Your task to perform on an android device: Search for bose soundlink mini on target, select the first entry, and add it to the cart. Image 0: 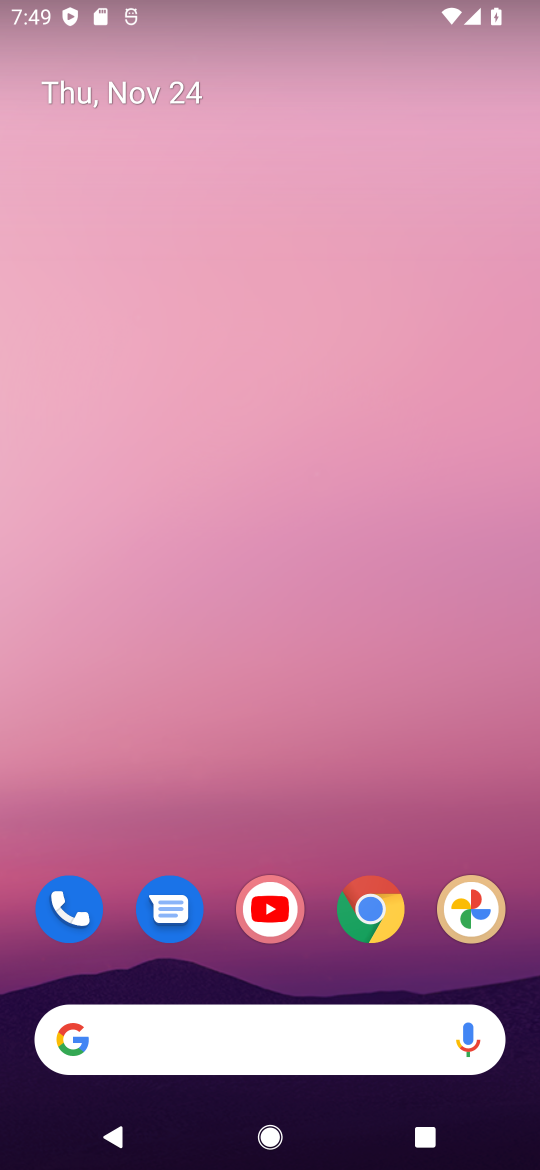
Step 0: click (381, 918)
Your task to perform on an android device: Search for bose soundlink mini on target, select the first entry, and add it to the cart. Image 1: 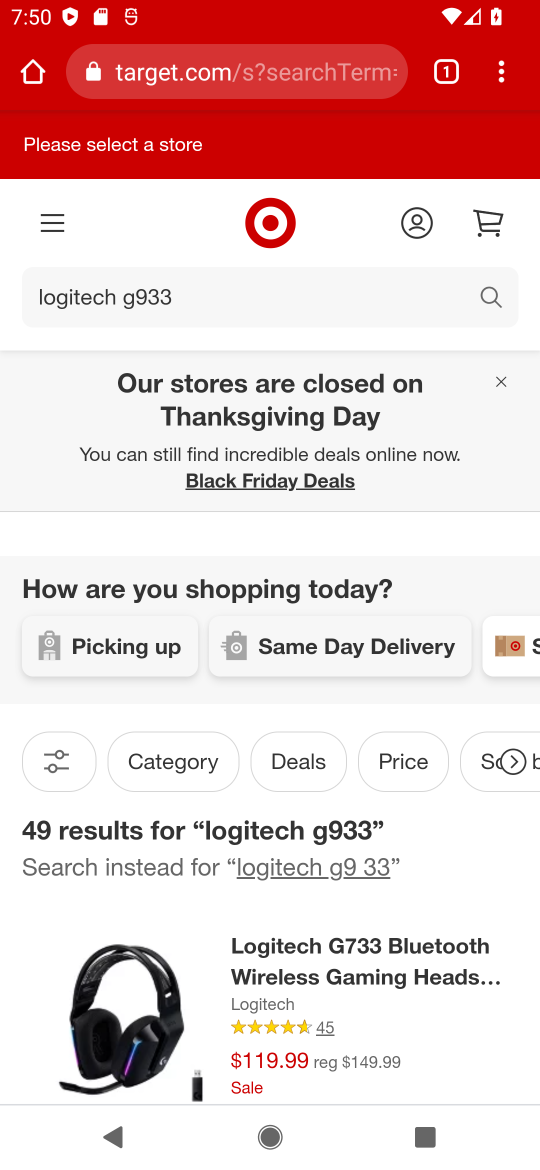
Step 1: click (238, 308)
Your task to perform on an android device: Search for bose soundlink mini on target, select the first entry, and add it to the cart. Image 2: 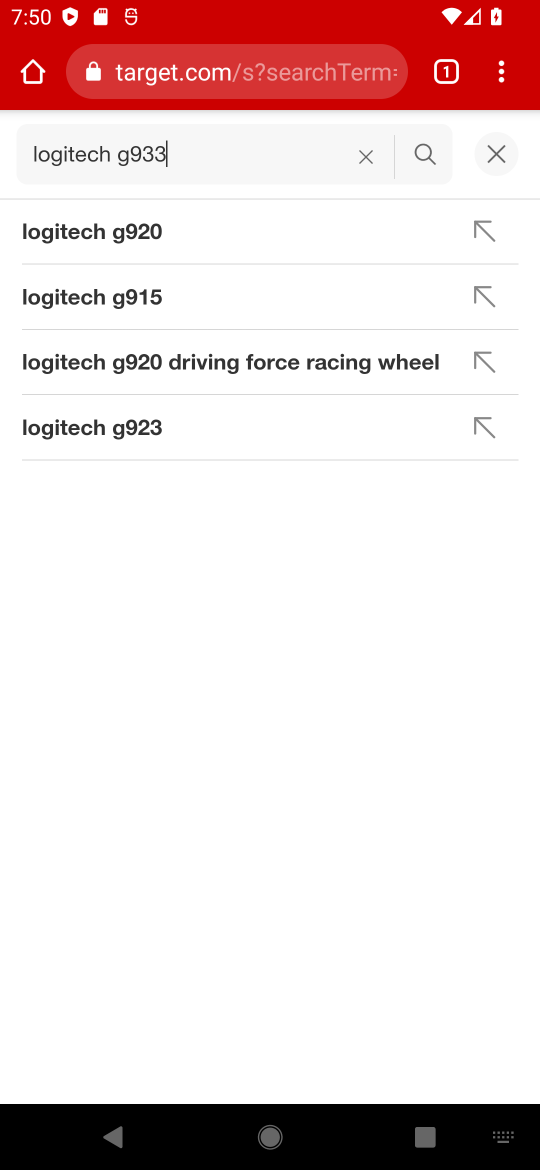
Step 2: click (481, 148)
Your task to perform on an android device: Search for bose soundlink mini on target, select the first entry, and add it to the cart. Image 3: 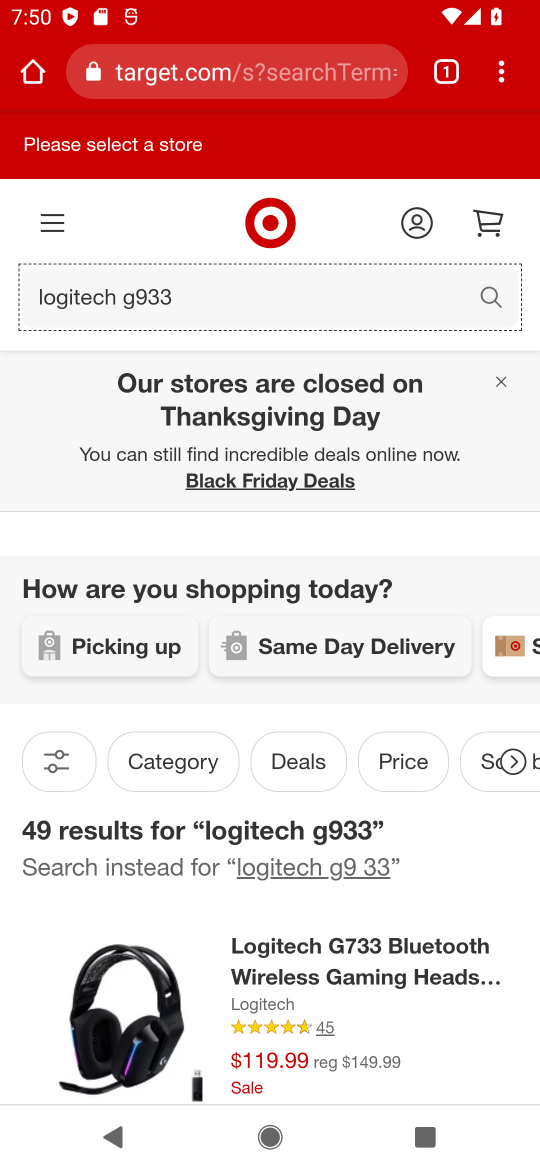
Step 3: click (248, 289)
Your task to perform on an android device: Search for bose soundlink mini on target, select the first entry, and add it to the cart. Image 4: 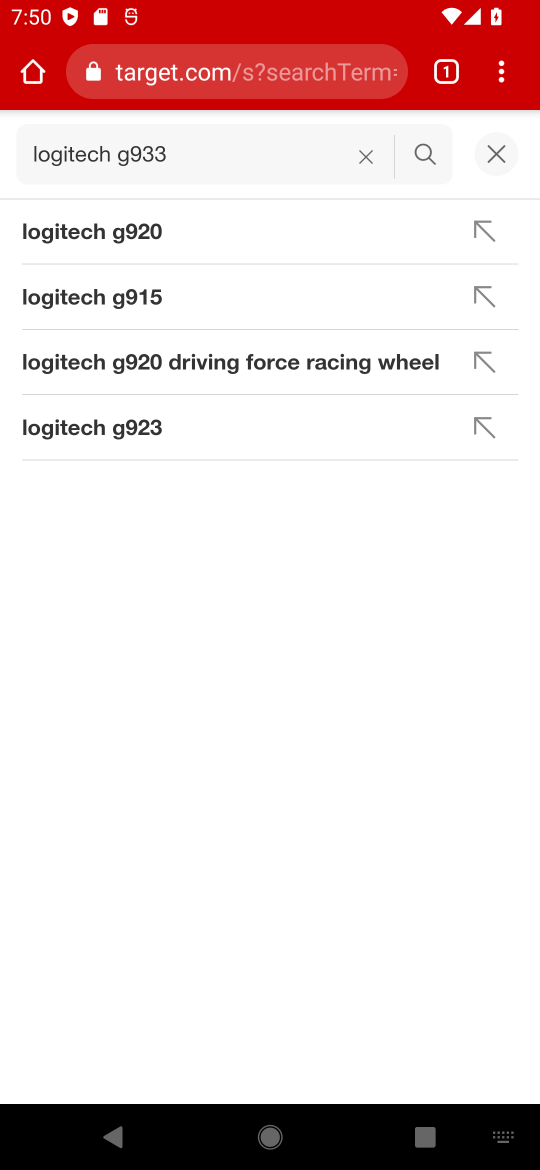
Step 4: click (489, 163)
Your task to perform on an android device: Search for bose soundlink mini on target, select the first entry, and add it to the cart. Image 5: 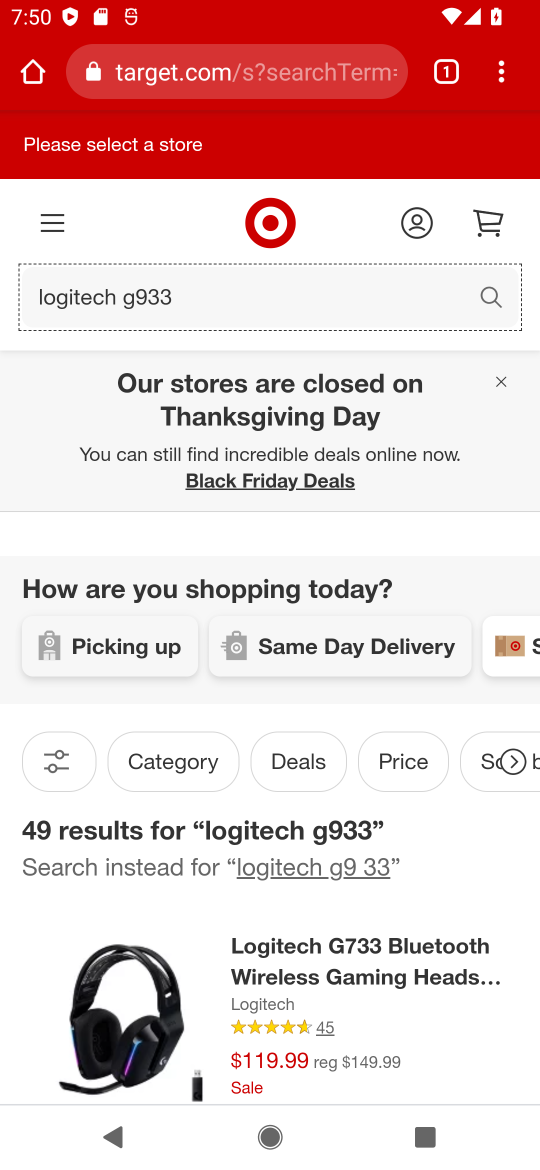
Step 5: click (380, 286)
Your task to perform on an android device: Search for bose soundlink mini on target, select the first entry, and add it to the cart. Image 6: 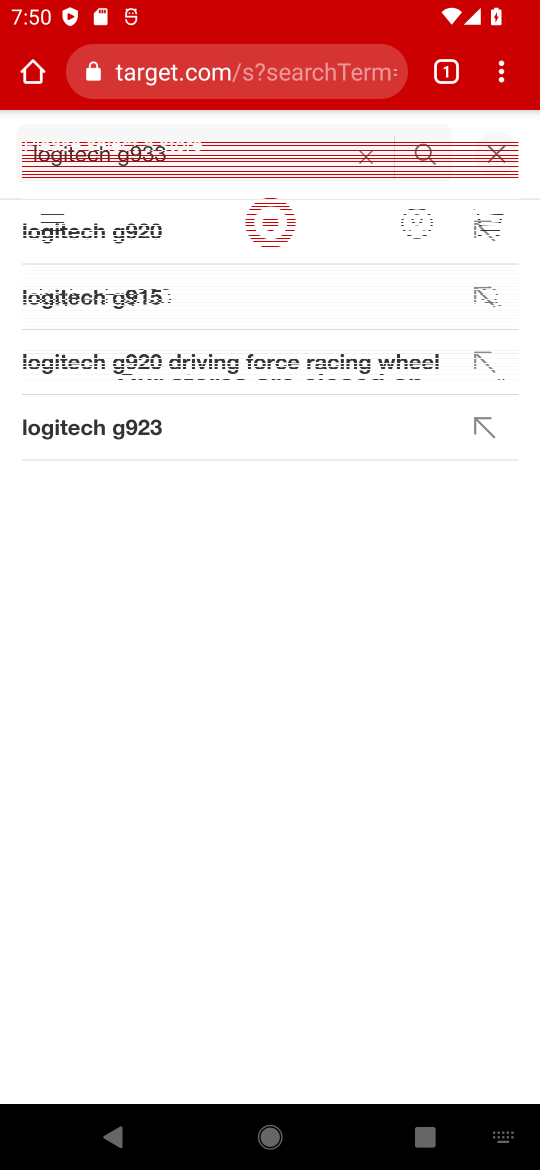
Step 6: click (377, 171)
Your task to perform on an android device: Search for bose soundlink mini on target, select the first entry, and add it to the cart. Image 7: 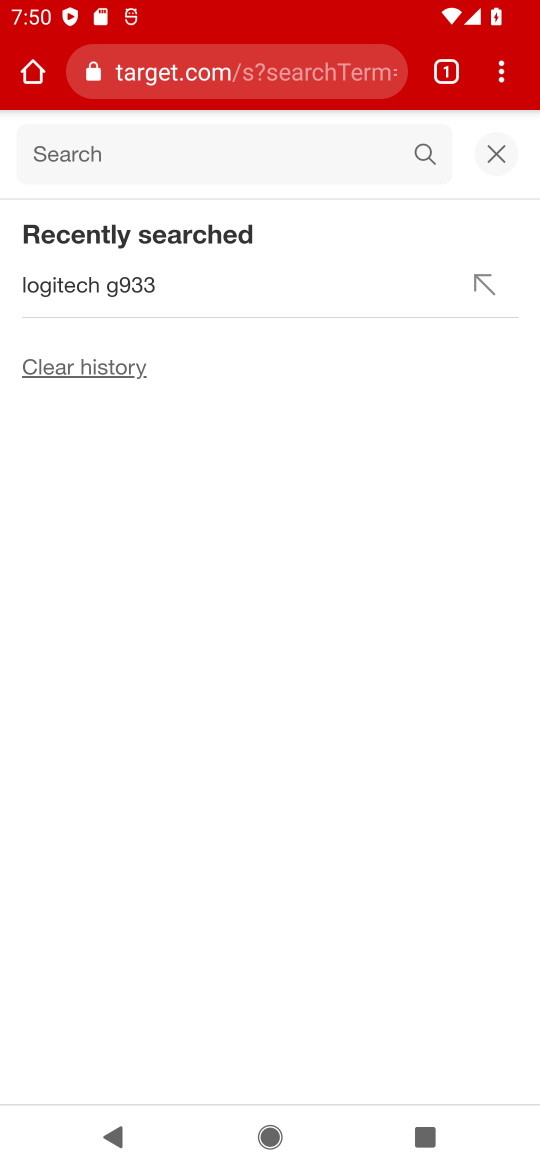
Step 7: click (214, 169)
Your task to perform on an android device: Search for bose soundlink mini on target, select the first entry, and add it to the cart. Image 8: 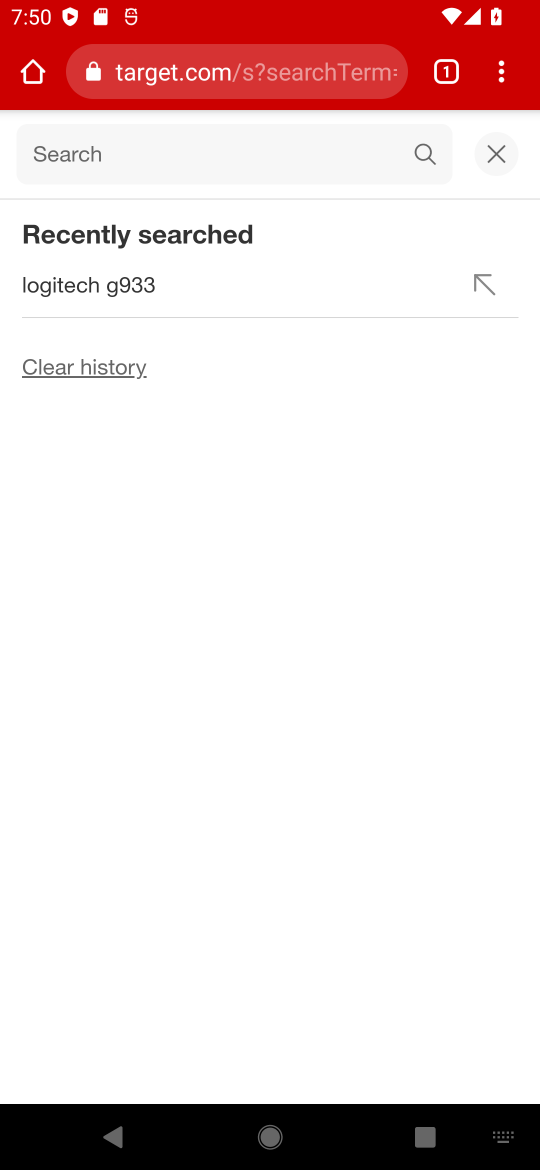
Step 8: type ""
Your task to perform on an android device: Search for bose soundlink mini on target, select the first entry, and add it to the cart. Image 9: 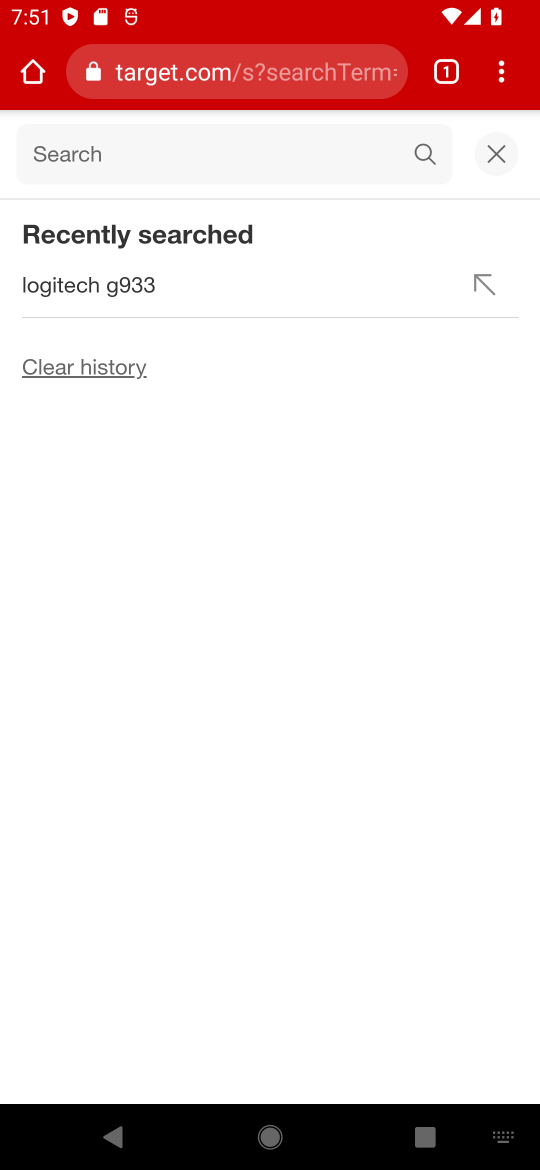
Step 9: type "bose soundlink mini"
Your task to perform on an android device: Search for bose soundlink mini on target, select the first entry, and add it to the cart. Image 10: 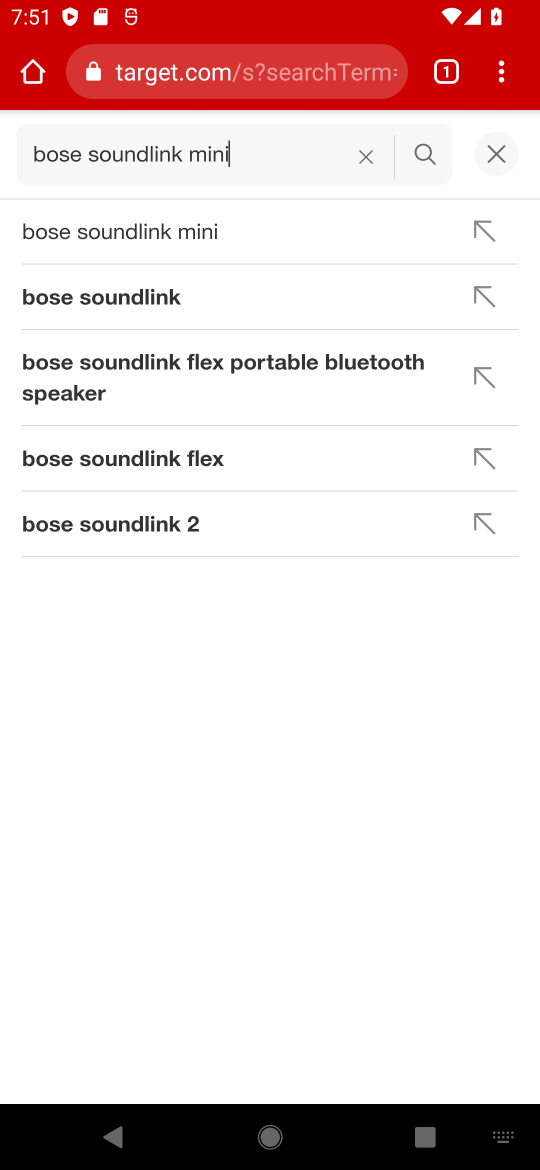
Step 10: press enter
Your task to perform on an android device: Search for bose soundlink mini on target, select the first entry, and add it to the cart. Image 11: 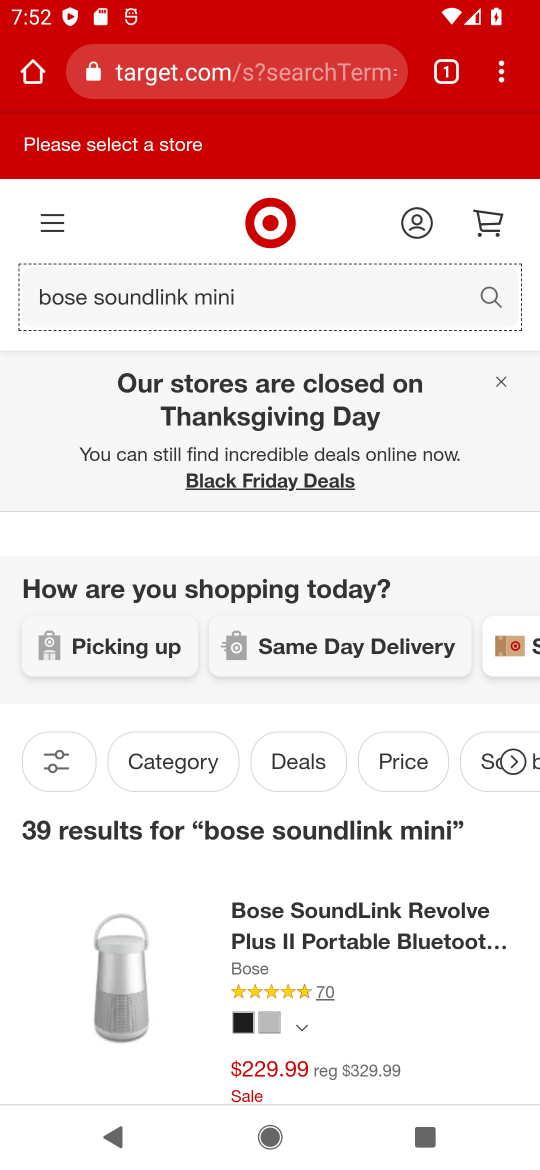
Step 11: drag from (335, 965) to (325, 589)
Your task to perform on an android device: Search for bose soundlink mini on target, select the first entry, and add it to the cart. Image 12: 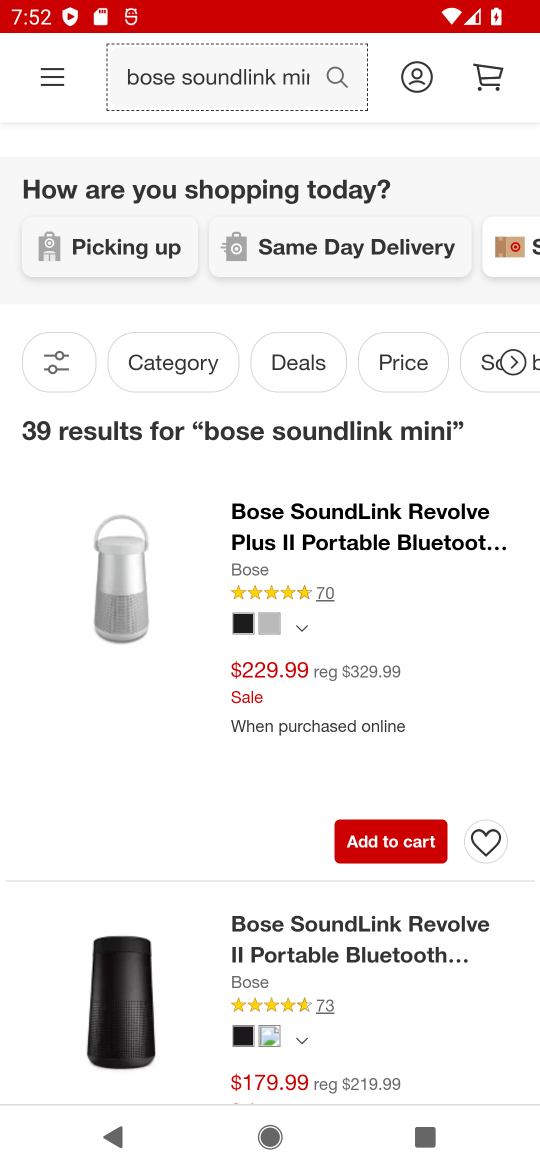
Step 12: click (400, 823)
Your task to perform on an android device: Search for bose soundlink mini on target, select the first entry, and add it to the cart. Image 13: 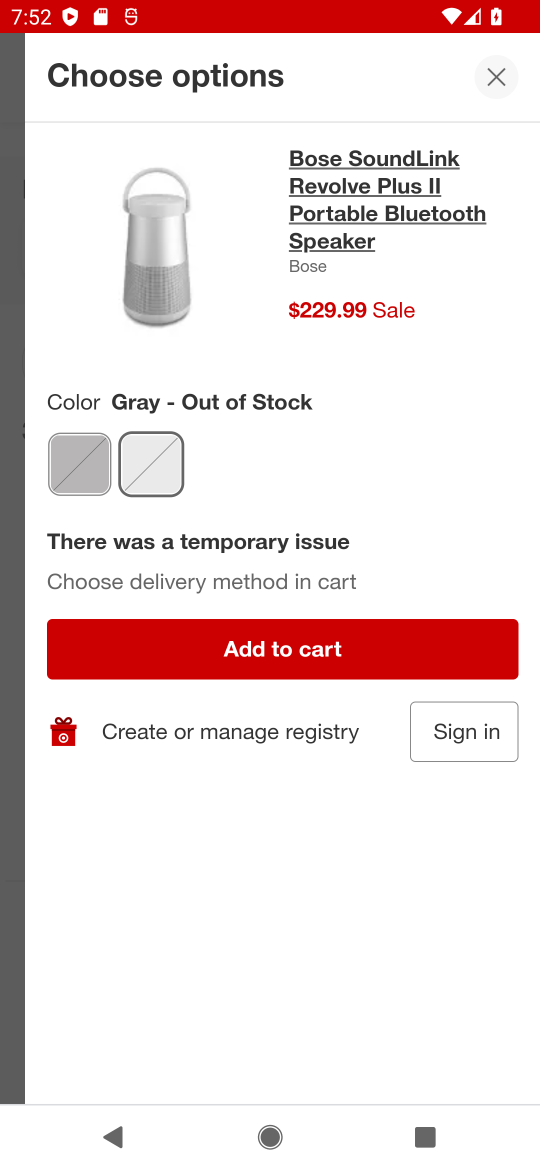
Step 13: click (247, 664)
Your task to perform on an android device: Search for bose soundlink mini on target, select the first entry, and add it to the cart. Image 14: 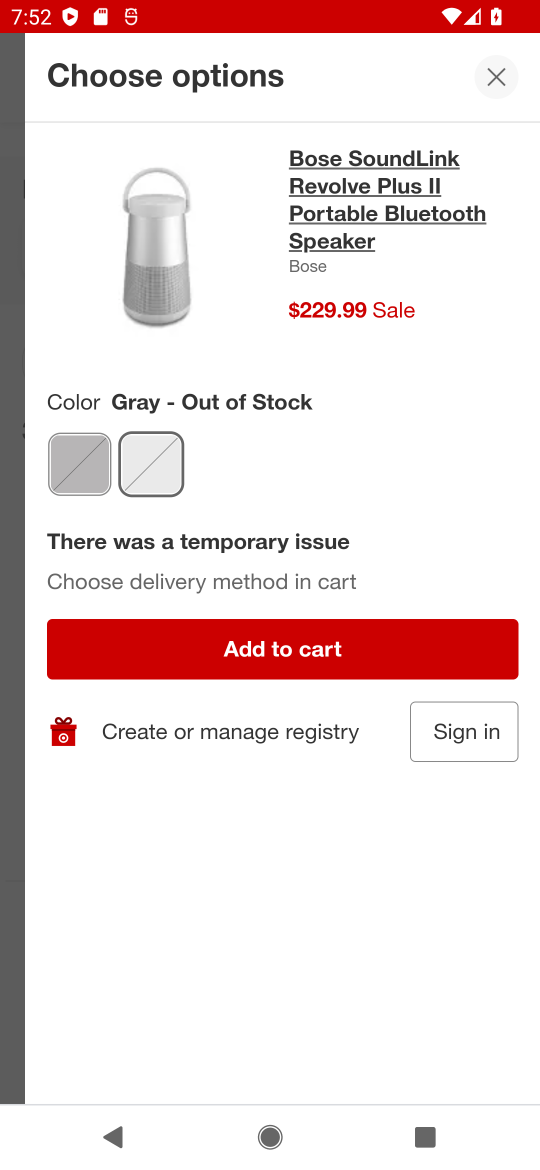
Step 14: click (247, 664)
Your task to perform on an android device: Search for bose soundlink mini on target, select the first entry, and add it to the cart. Image 15: 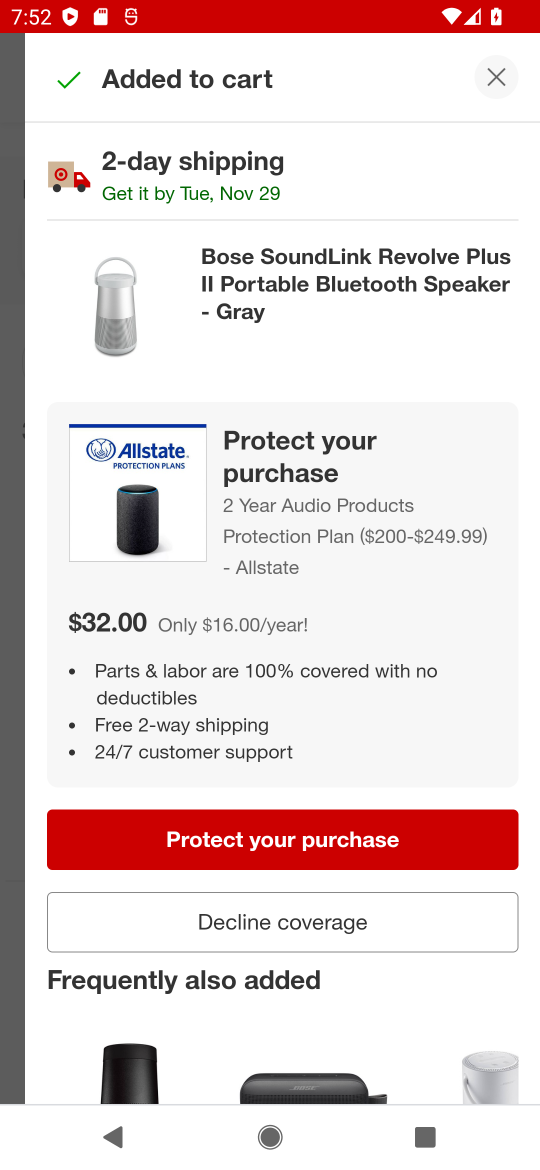
Step 15: task complete